Your task to perform on an android device: Go to sound settings Image 0: 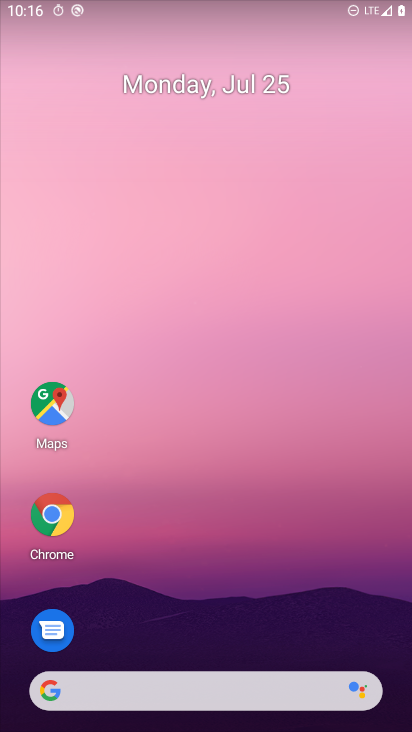
Step 0: drag from (17, 692) to (267, 103)
Your task to perform on an android device: Go to sound settings Image 1: 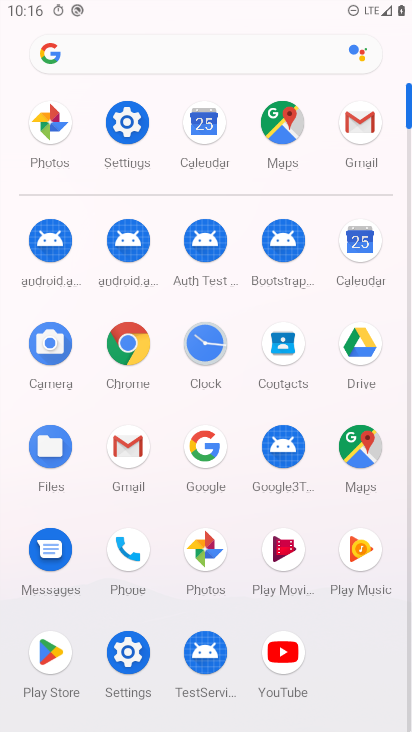
Step 1: click (123, 670)
Your task to perform on an android device: Go to sound settings Image 2: 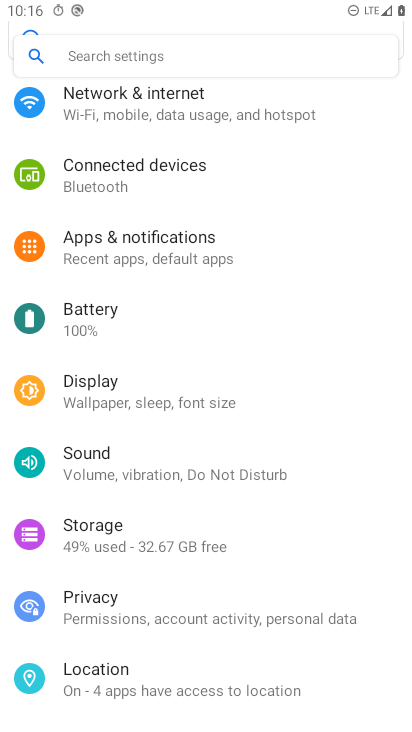
Step 2: click (127, 470)
Your task to perform on an android device: Go to sound settings Image 3: 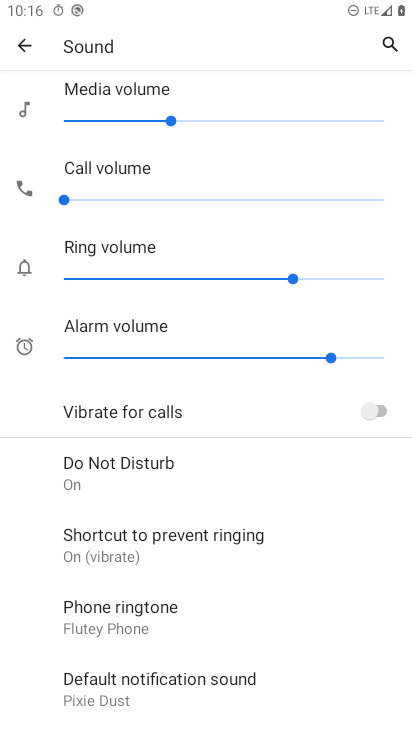
Step 3: task complete